Your task to perform on an android device: Open accessibility settings Image 0: 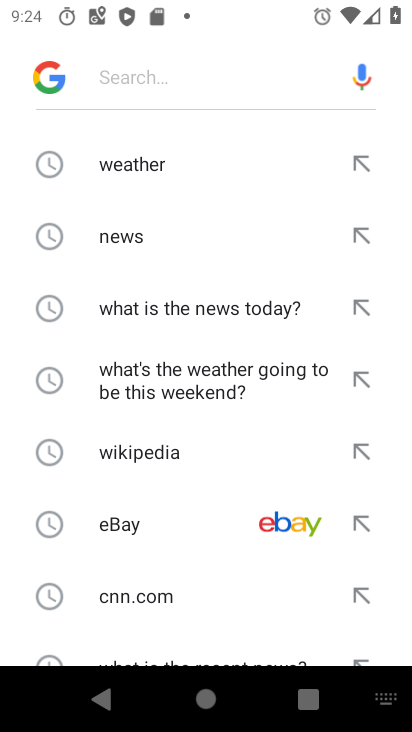
Step 0: press home button
Your task to perform on an android device: Open accessibility settings Image 1: 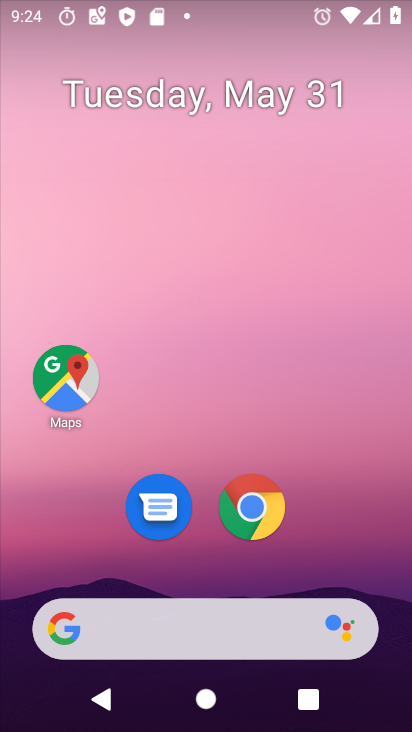
Step 1: drag from (341, 576) to (339, 29)
Your task to perform on an android device: Open accessibility settings Image 2: 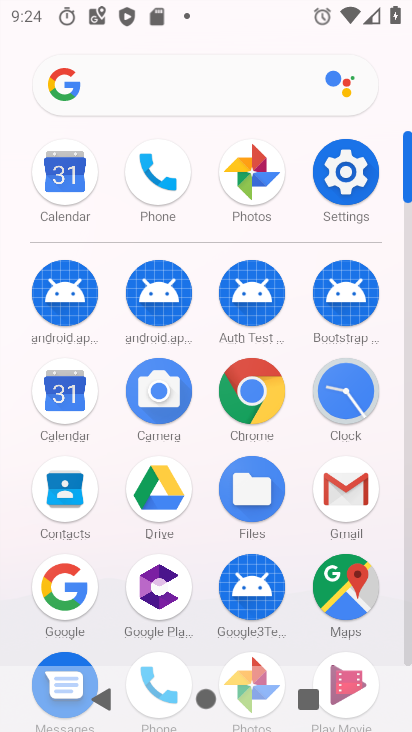
Step 2: click (355, 170)
Your task to perform on an android device: Open accessibility settings Image 3: 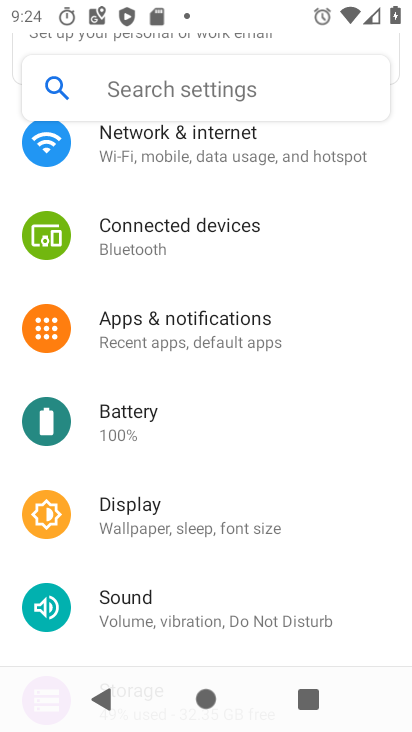
Step 3: drag from (364, 554) to (313, 135)
Your task to perform on an android device: Open accessibility settings Image 4: 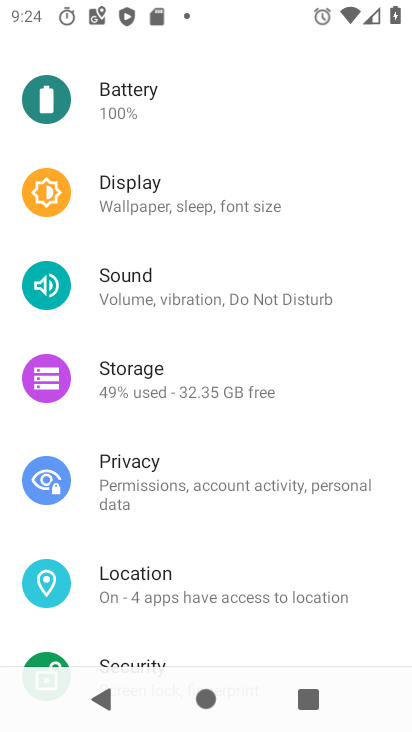
Step 4: drag from (255, 512) to (243, 132)
Your task to perform on an android device: Open accessibility settings Image 5: 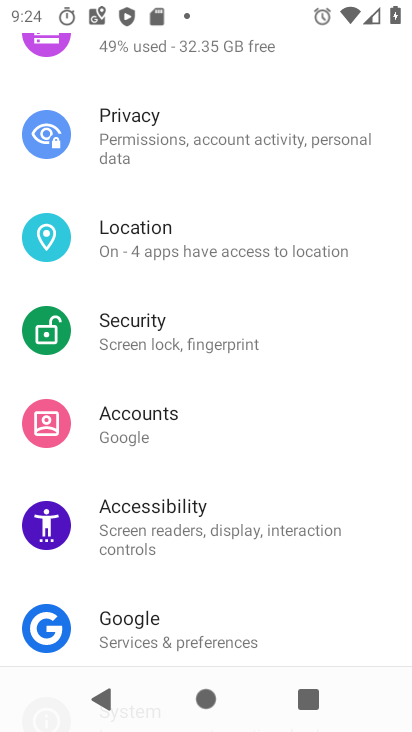
Step 5: click (154, 522)
Your task to perform on an android device: Open accessibility settings Image 6: 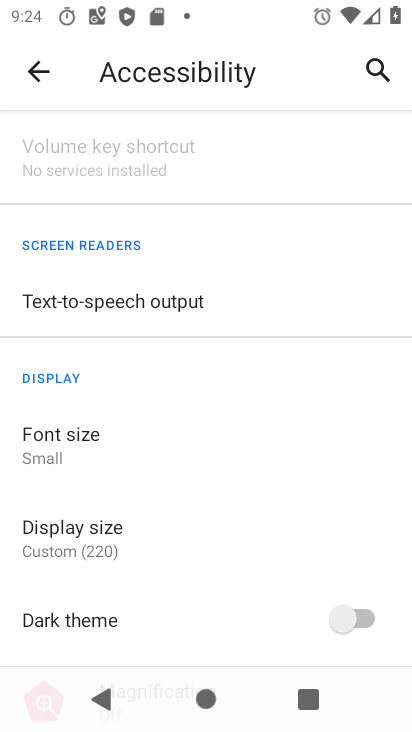
Step 6: task complete